Your task to perform on an android device: Check the weather Image 0: 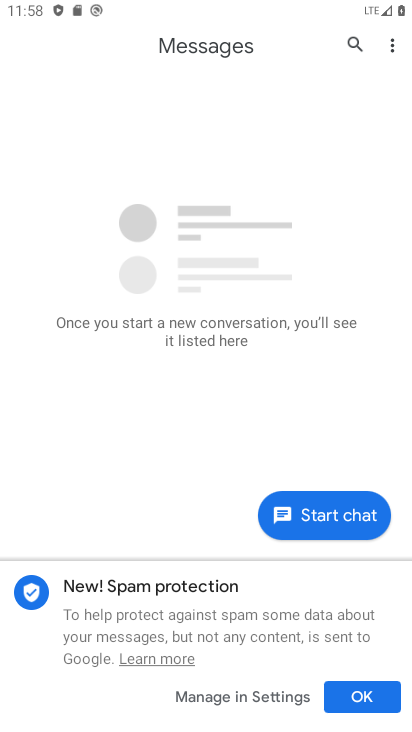
Step 0: press home button
Your task to perform on an android device: Check the weather Image 1: 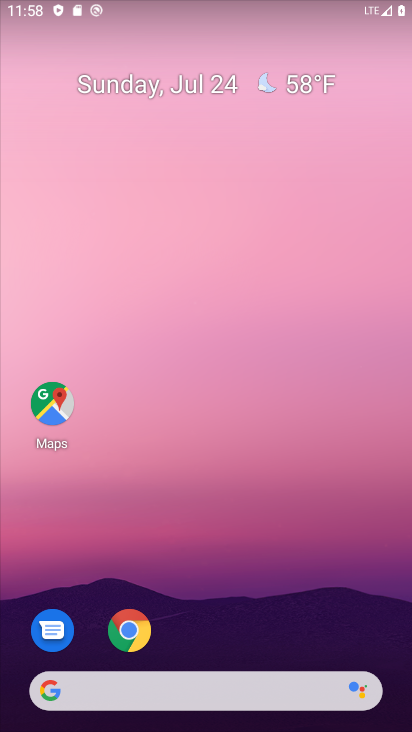
Step 1: click (137, 625)
Your task to perform on an android device: Check the weather Image 2: 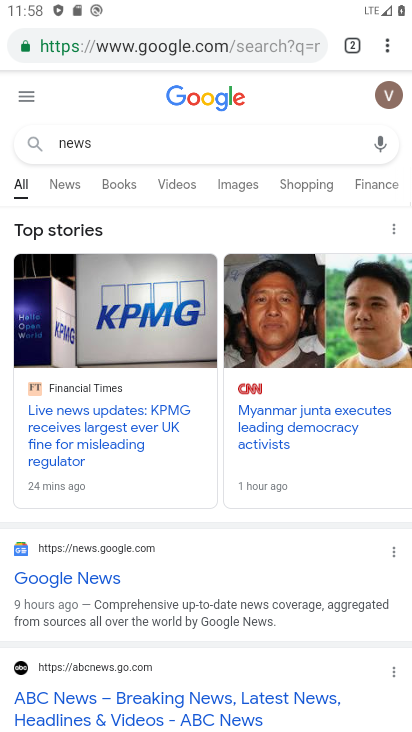
Step 2: click (190, 50)
Your task to perform on an android device: Check the weather Image 3: 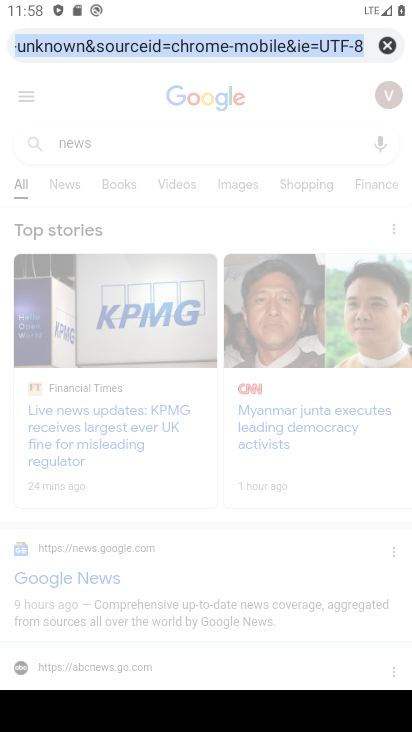
Step 3: type "weather"
Your task to perform on an android device: Check the weather Image 4: 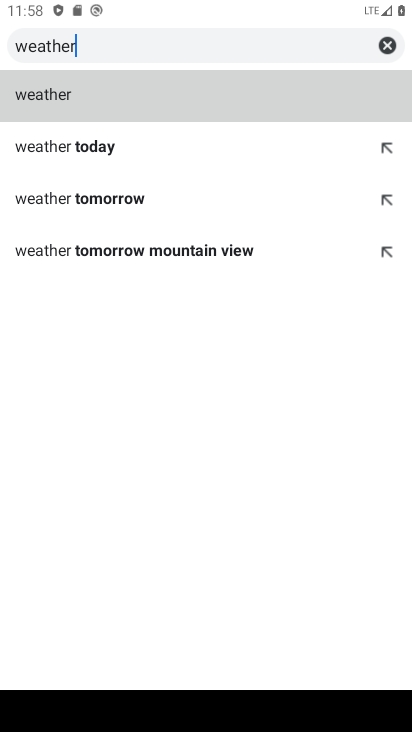
Step 4: click (121, 102)
Your task to perform on an android device: Check the weather Image 5: 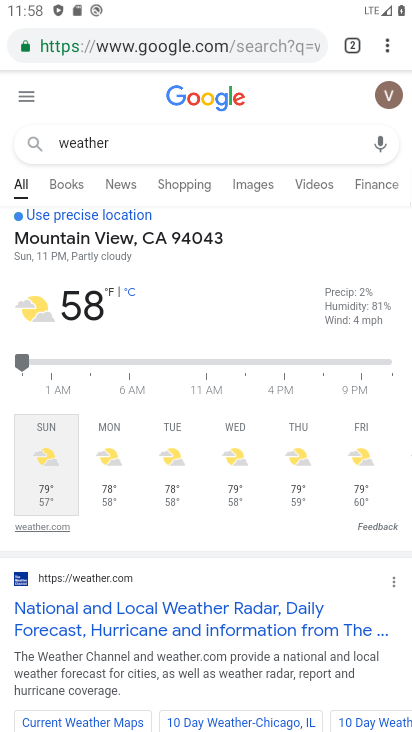
Step 5: task complete